Your task to perform on an android device: Turn off the flashlight Image 0: 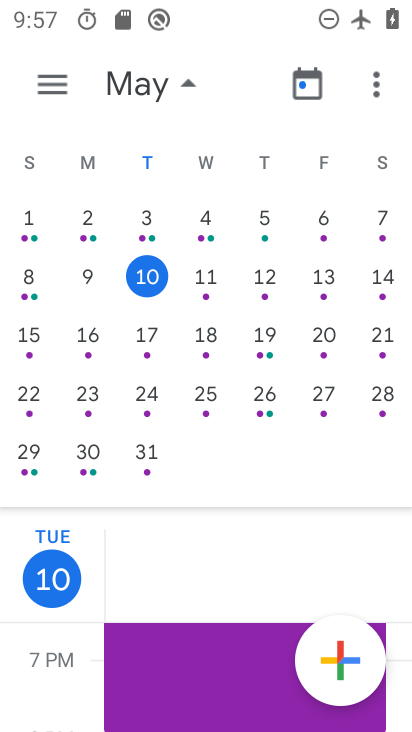
Step 0: press home button
Your task to perform on an android device: Turn off the flashlight Image 1: 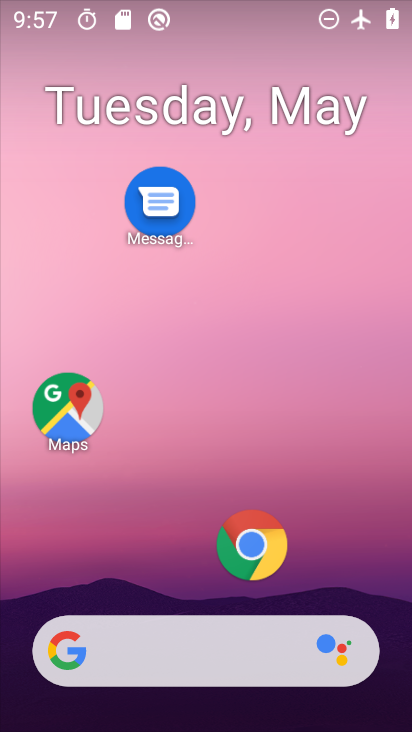
Step 1: drag from (187, 556) to (157, 212)
Your task to perform on an android device: Turn off the flashlight Image 2: 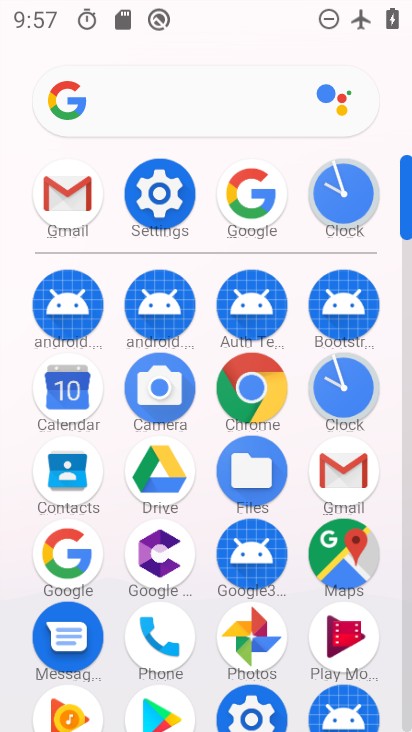
Step 2: click (157, 206)
Your task to perform on an android device: Turn off the flashlight Image 3: 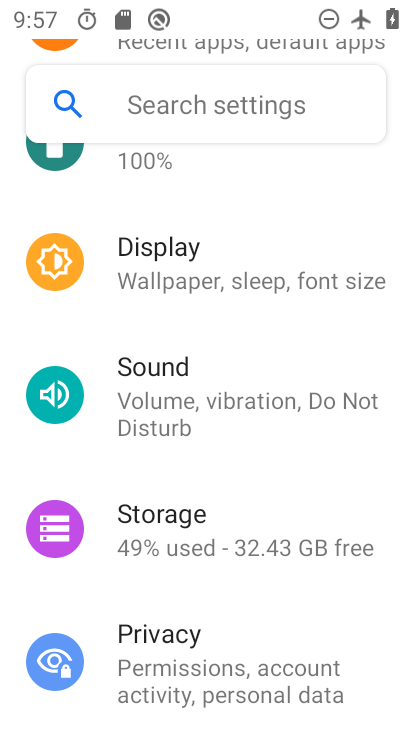
Step 3: drag from (198, 241) to (214, 560)
Your task to perform on an android device: Turn off the flashlight Image 4: 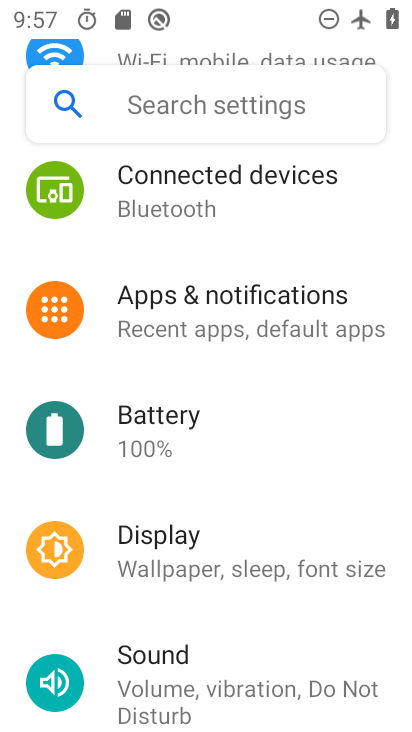
Step 4: drag from (220, 281) to (233, 572)
Your task to perform on an android device: Turn off the flashlight Image 5: 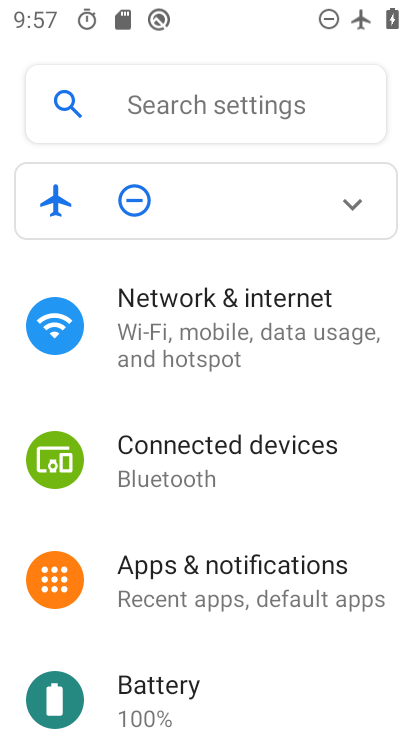
Step 5: drag from (198, 651) to (191, 336)
Your task to perform on an android device: Turn off the flashlight Image 6: 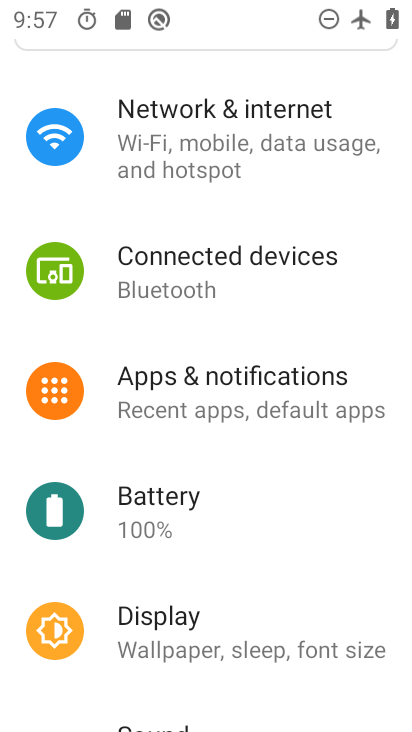
Step 6: click (170, 606)
Your task to perform on an android device: Turn off the flashlight Image 7: 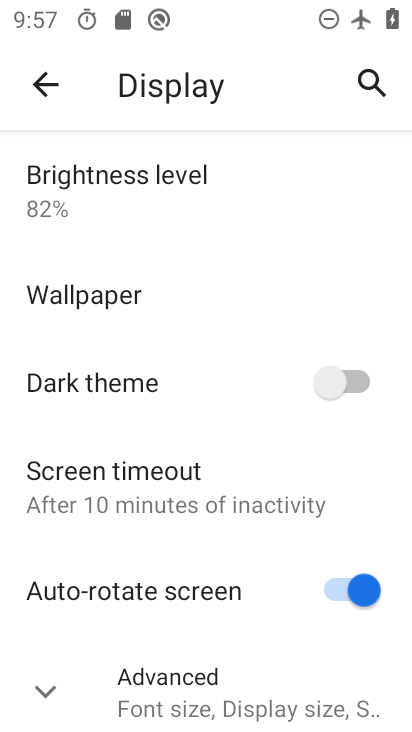
Step 7: task complete